Your task to perform on an android device: Clear the shopping cart on amazon.com. Search for logitech g910 on amazon.com, select the first entry, add it to the cart, then select checkout. Image 0: 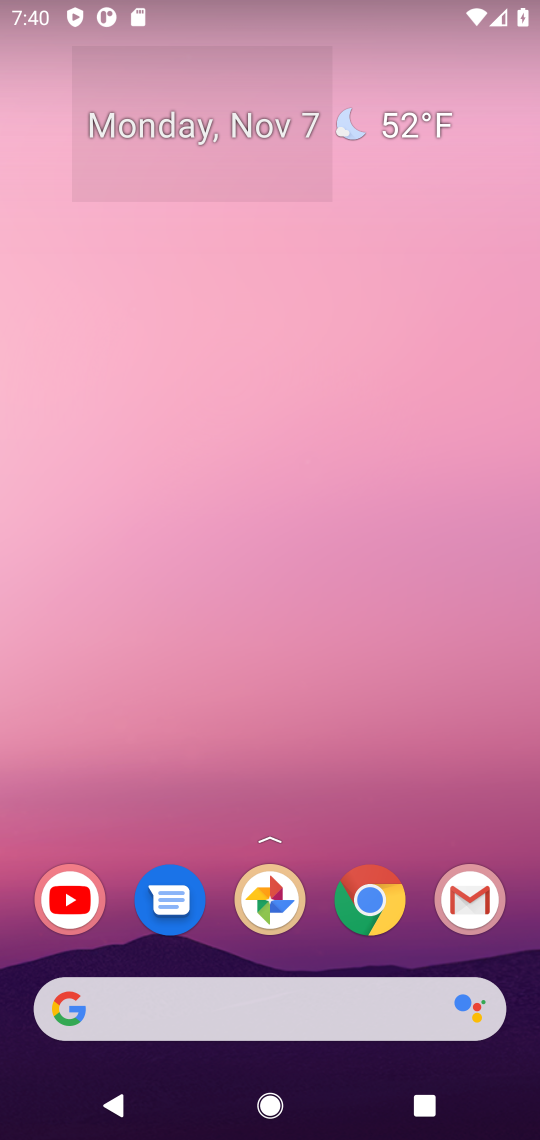
Step 0: click (282, 999)
Your task to perform on an android device: Clear the shopping cart on amazon.com. Search for logitech g910 on amazon.com, select the first entry, add it to the cart, then select checkout. Image 1: 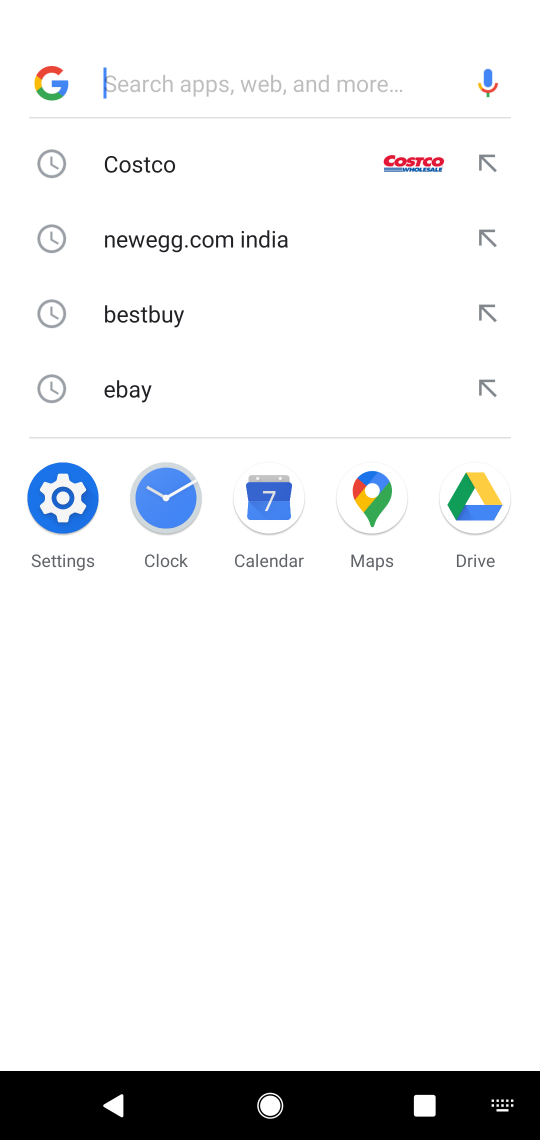
Step 1: type "amazon"
Your task to perform on an android device: Clear the shopping cart on amazon.com. Search for logitech g910 on amazon.com, select the first entry, add it to the cart, then select checkout. Image 2: 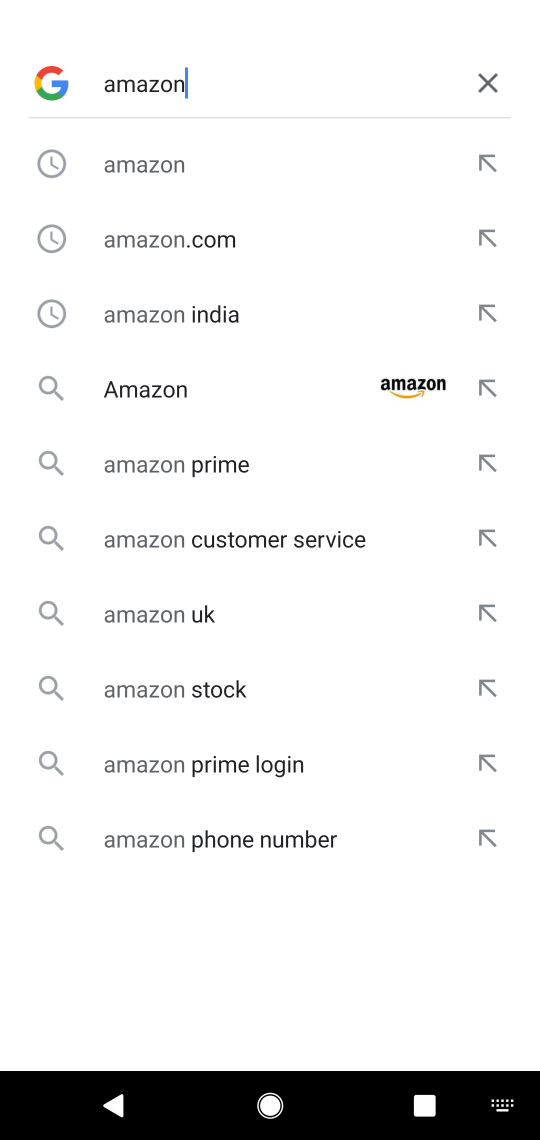
Step 2: click (239, 389)
Your task to perform on an android device: Clear the shopping cart on amazon.com. Search for logitech g910 on amazon.com, select the first entry, add it to the cart, then select checkout. Image 3: 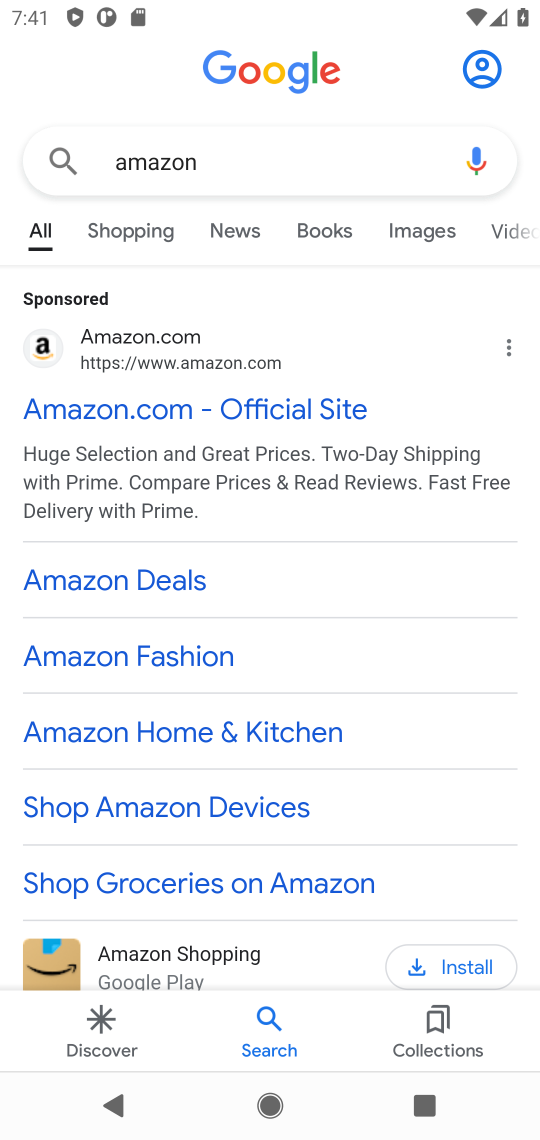
Step 3: click (199, 404)
Your task to perform on an android device: Clear the shopping cart on amazon.com. Search for logitech g910 on amazon.com, select the first entry, add it to the cart, then select checkout. Image 4: 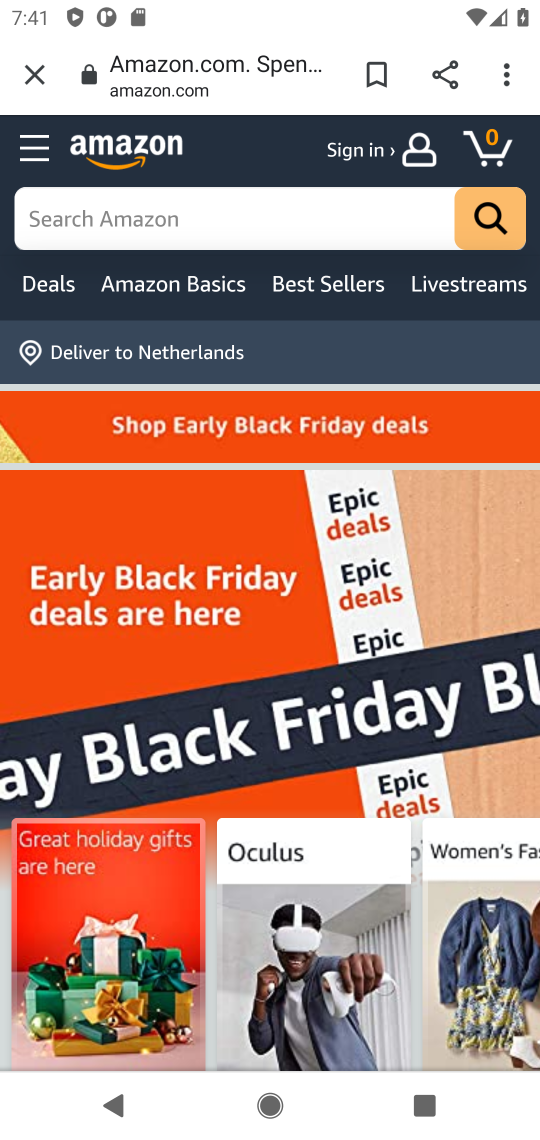
Step 4: click (187, 220)
Your task to perform on an android device: Clear the shopping cart on amazon.com. Search for logitech g910 on amazon.com, select the first entry, add it to the cart, then select checkout. Image 5: 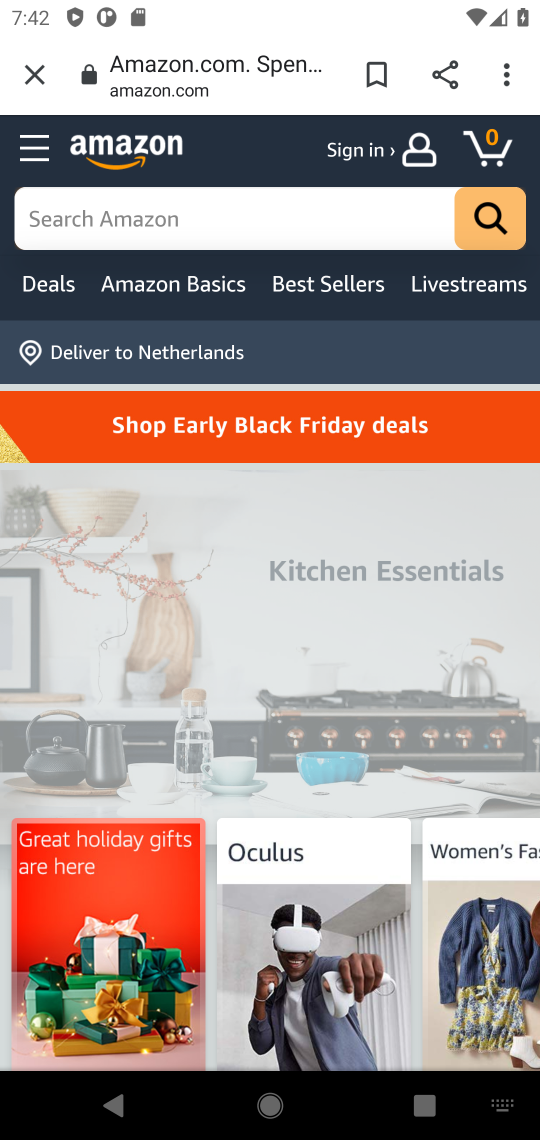
Step 5: type "logitech g910"
Your task to perform on an android device: Clear the shopping cart on amazon.com. Search for logitech g910 on amazon.com, select the first entry, add it to the cart, then select checkout. Image 6: 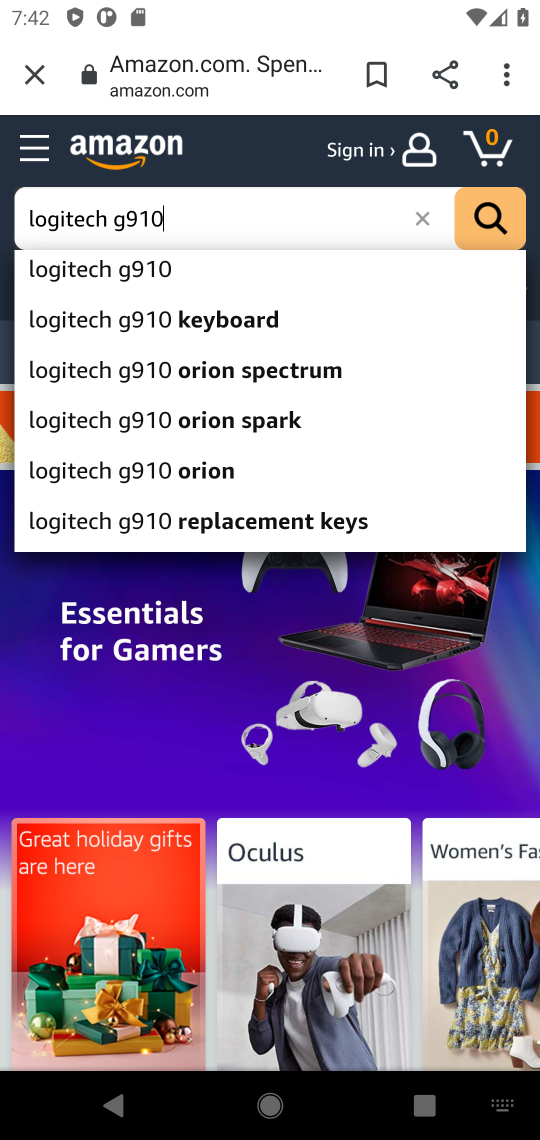
Step 6: click (300, 283)
Your task to perform on an android device: Clear the shopping cart on amazon.com. Search for logitech g910 on amazon.com, select the first entry, add it to the cart, then select checkout. Image 7: 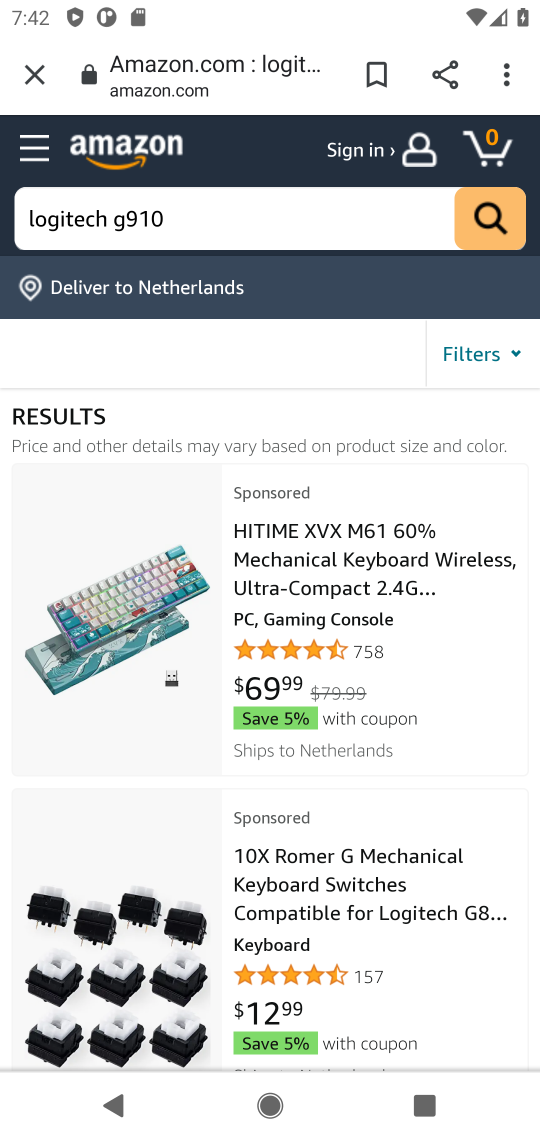
Step 7: click (460, 235)
Your task to perform on an android device: Clear the shopping cart on amazon.com. Search for logitech g910 on amazon.com, select the first entry, add it to the cart, then select checkout. Image 8: 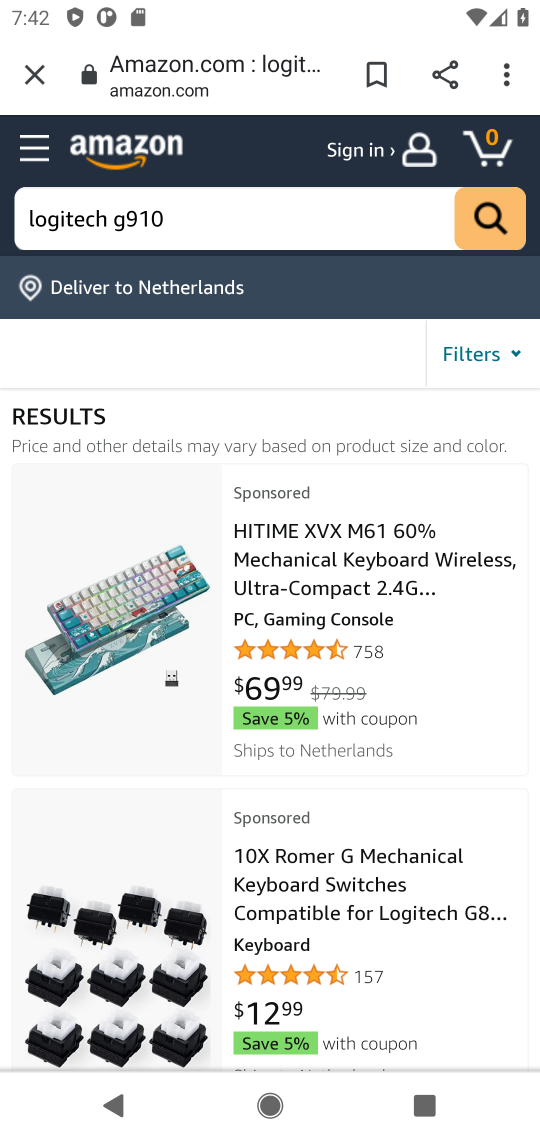
Step 8: click (250, 562)
Your task to perform on an android device: Clear the shopping cart on amazon.com. Search for logitech g910 on amazon.com, select the first entry, add it to the cart, then select checkout. Image 9: 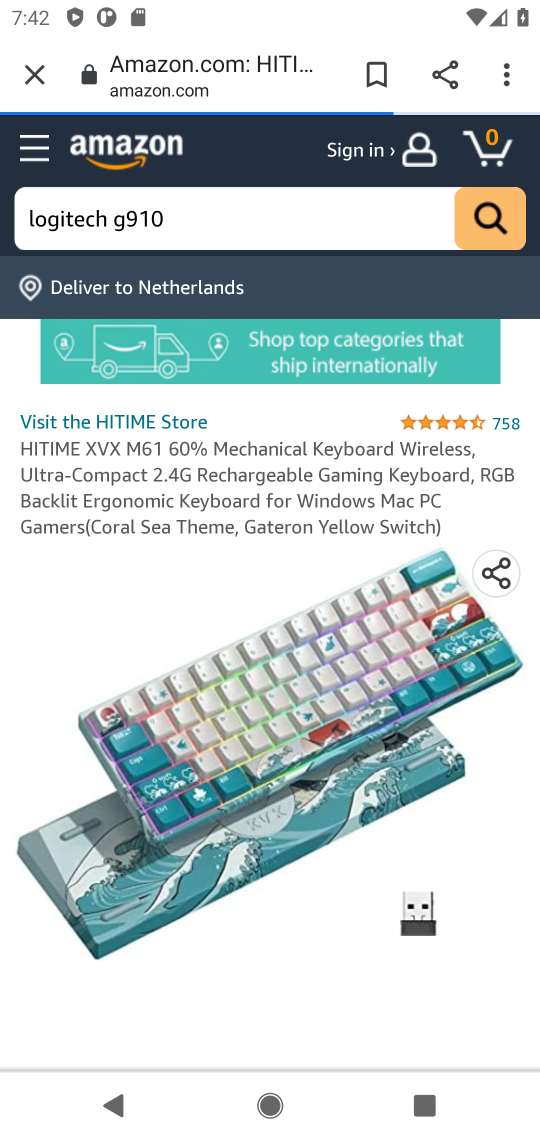
Step 9: task complete